Your task to perform on an android device: Search for "razer blackwidow" on newegg.com, select the first entry, add it to the cart, then select checkout. Image 0: 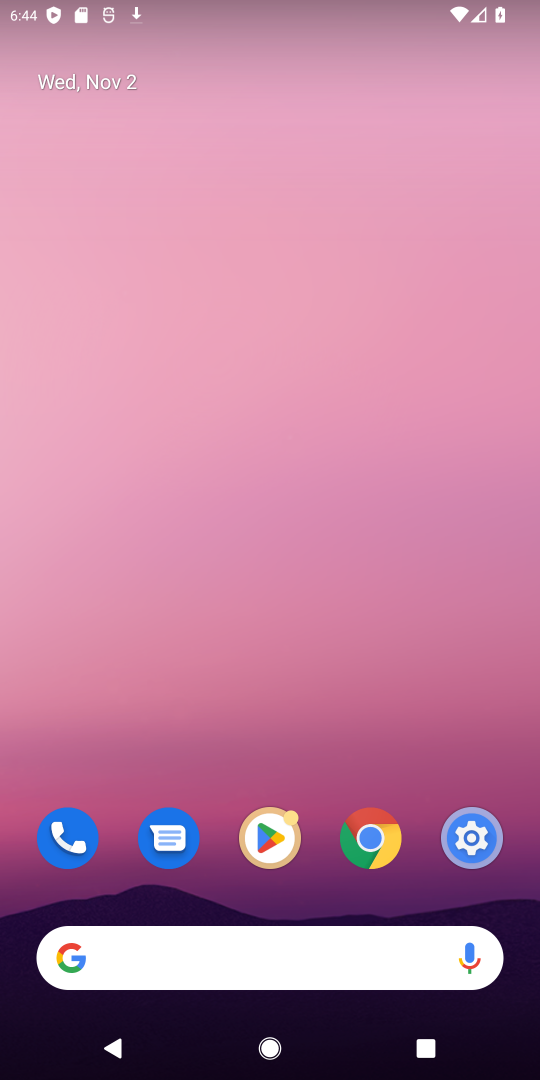
Step 0: click (361, 840)
Your task to perform on an android device: Search for "razer blackwidow" on newegg.com, select the first entry, add it to the cart, then select checkout. Image 1: 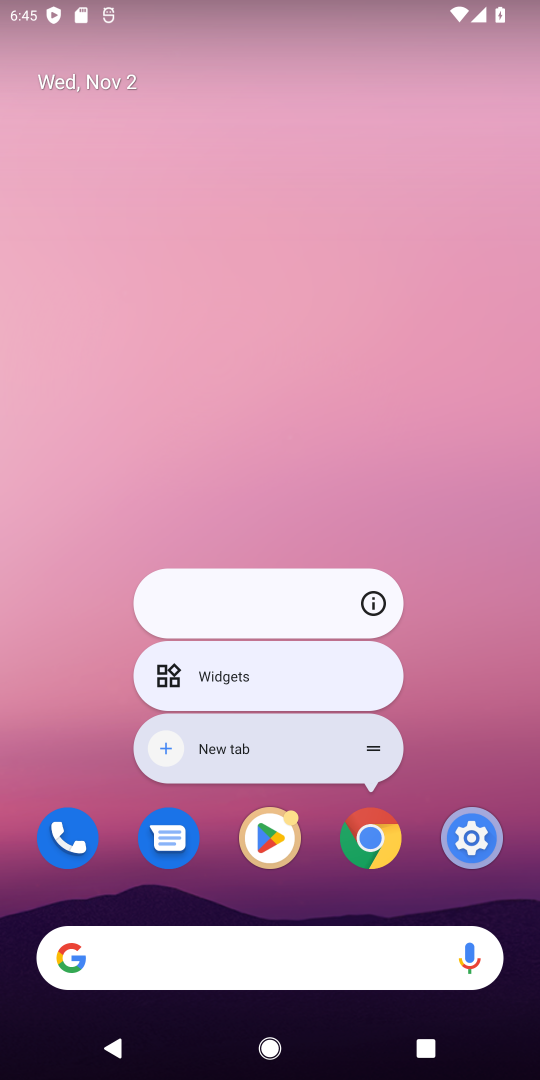
Step 1: click (372, 840)
Your task to perform on an android device: Search for "razer blackwidow" on newegg.com, select the first entry, add it to the cart, then select checkout. Image 2: 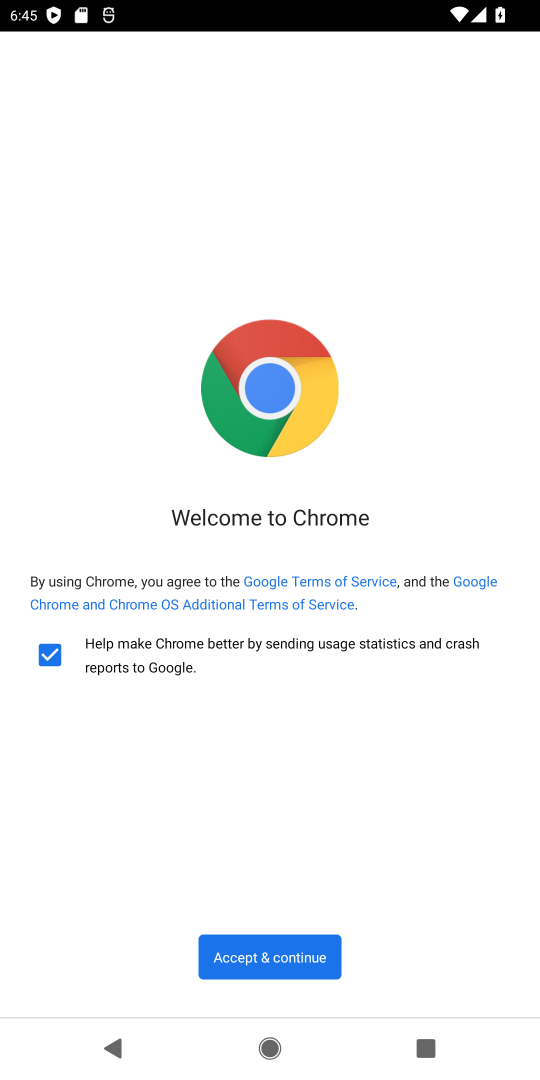
Step 2: click (282, 965)
Your task to perform on an android device: Search for "razer blackwidow" on newegg.com, select the first entry, add it to the cart, then select checkout. Image 3: 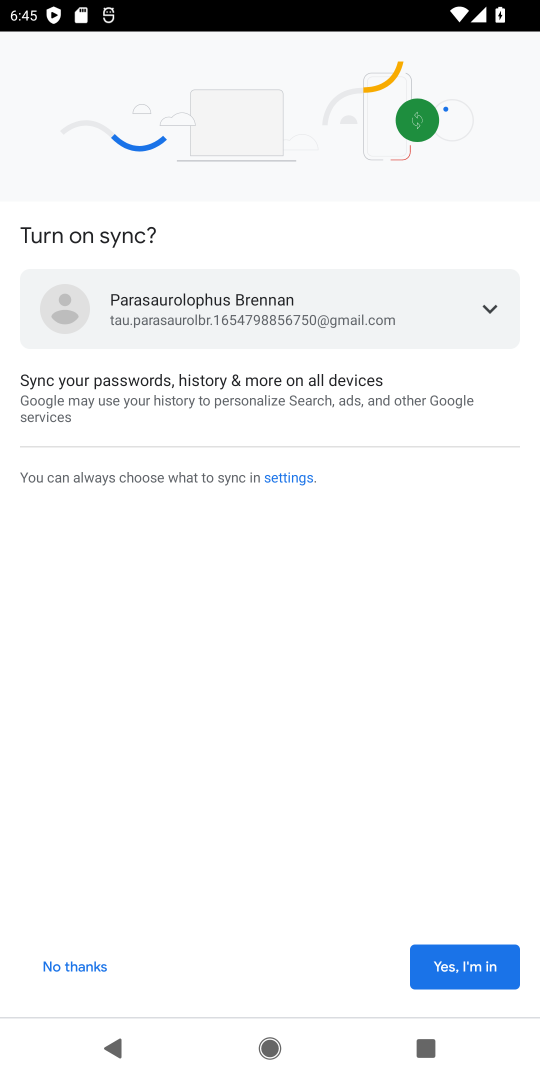
Step 3: click (483, 963)
Your task to perform on an android device: Search for "razer blackwidow" on newegg.com, select the first entry, add it to the cart, then select checkout. Image 4: 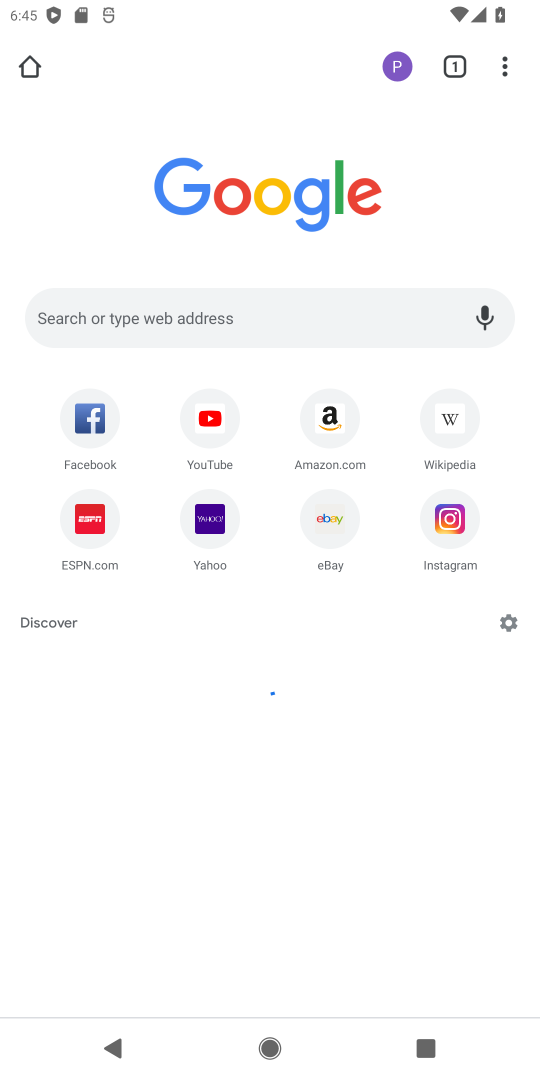
Step 4: click (280, 334)
Your task to perform on an android device: Search for "razer blackwidow" on newegg.com, select the first entry, add it to the cart, then select checkout. Image 5: 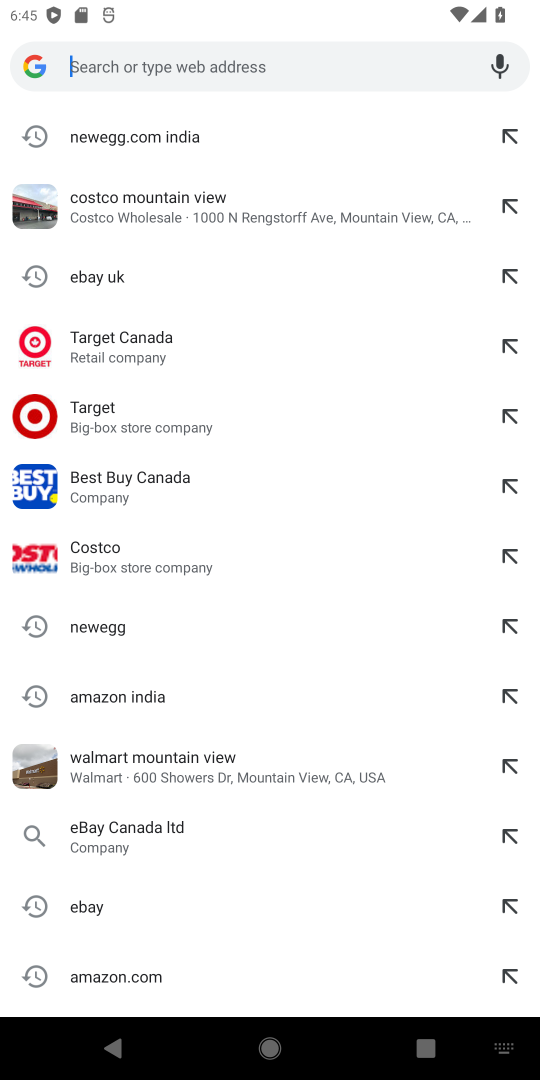
Step 5: press enter
Your task to perform on an android device: Search for "razer blackwidow" on newegg.com, select the first entry, add it to the cart, then select checkout. Image 6: 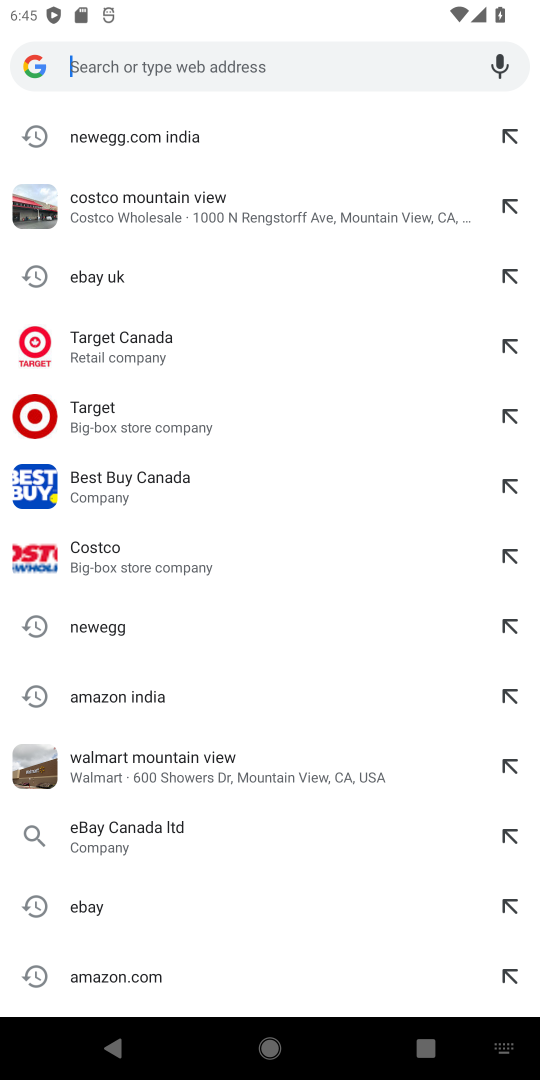
Step 6: type "newegg.com"
Your task to perform on an android device: Search for "razer blackwidow" on newegg.com, select the first entry, add it to the cart, then select checkout. Image 7: 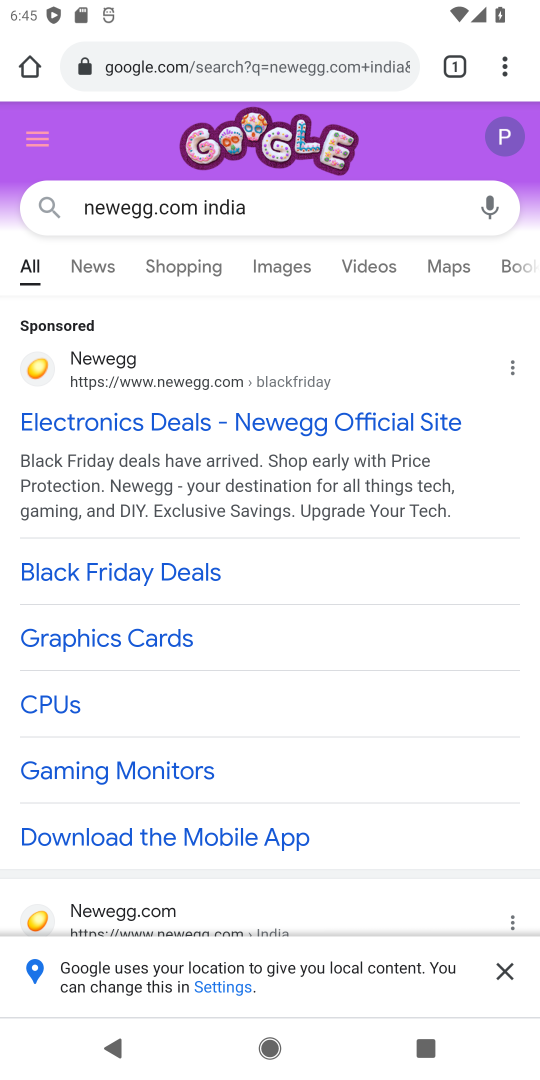
Step 7: click (189, 423)
Your task to perform on an android device: Search for "razer blackwidow" on newegg.com, select the first entry, add it to the cart, then select checkout. Image 8: 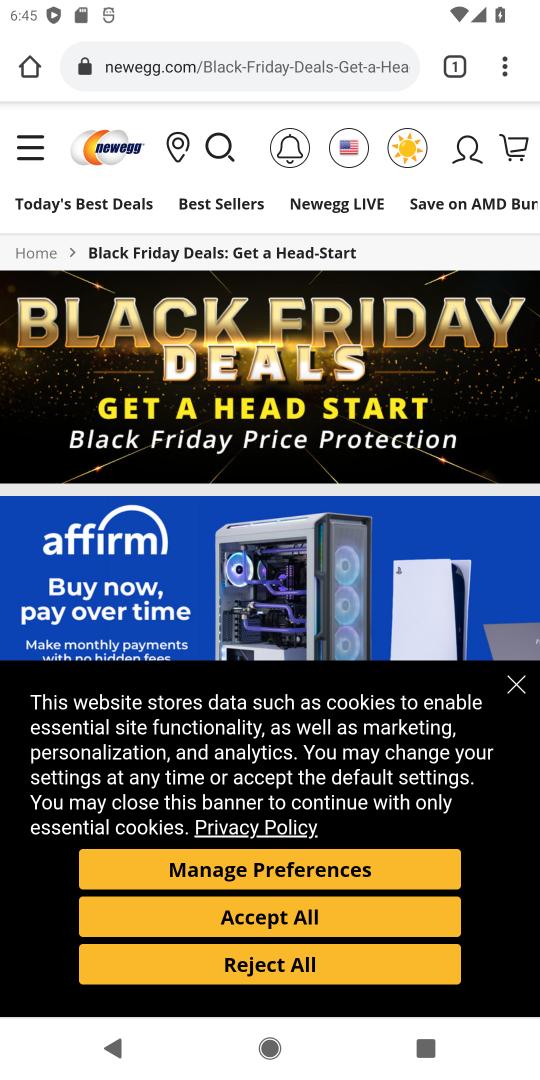
Step 8: click (295, 919)
Your task to perform on an android device: Search for "razer blackwidow" on newegg.com, select the first entry, add it to the cart, then select checkout. Image 9: 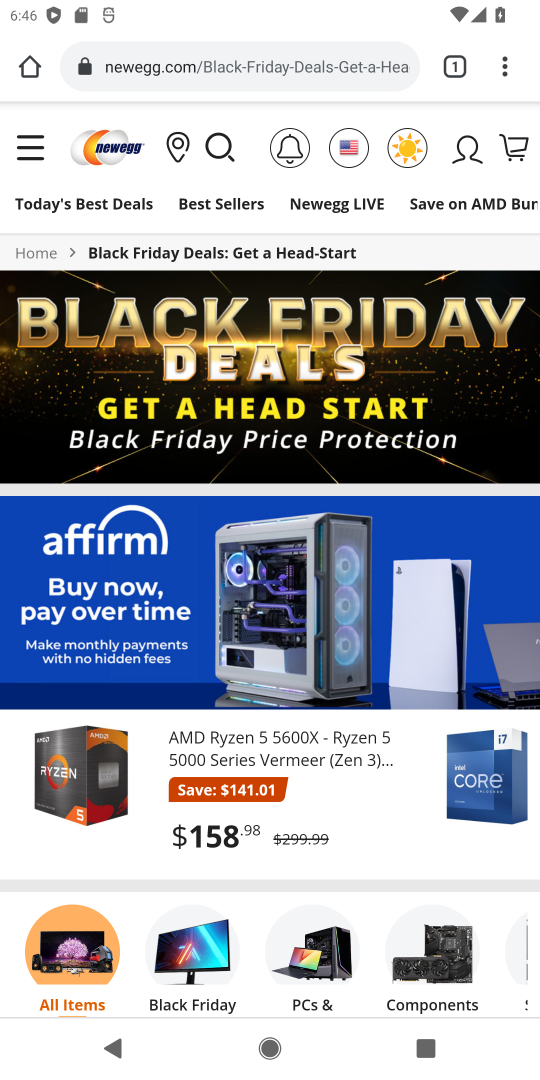
Step 9: click (233, 156)
Your task to perform on an android device: Search for "razer blackwidow" on newegg.com, select the first entry, add it to the cart, then select checkout. Image 10: 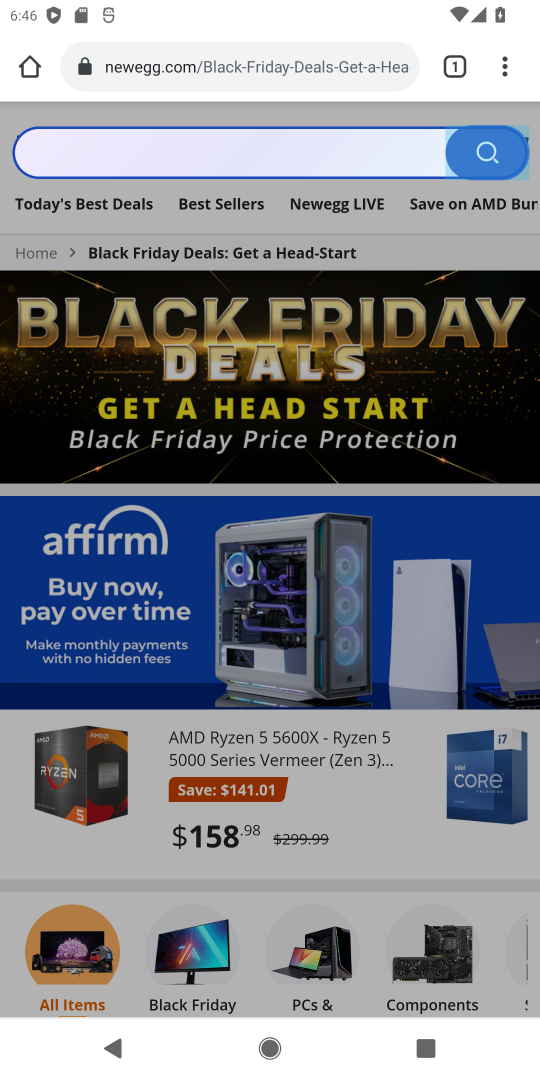
Step 10: click (245, 153)
Your task to perform on an android device: Search for "razer blackwidow" on newegg.com, select the first entry, add it to the cart, then select checkout. Image 11: 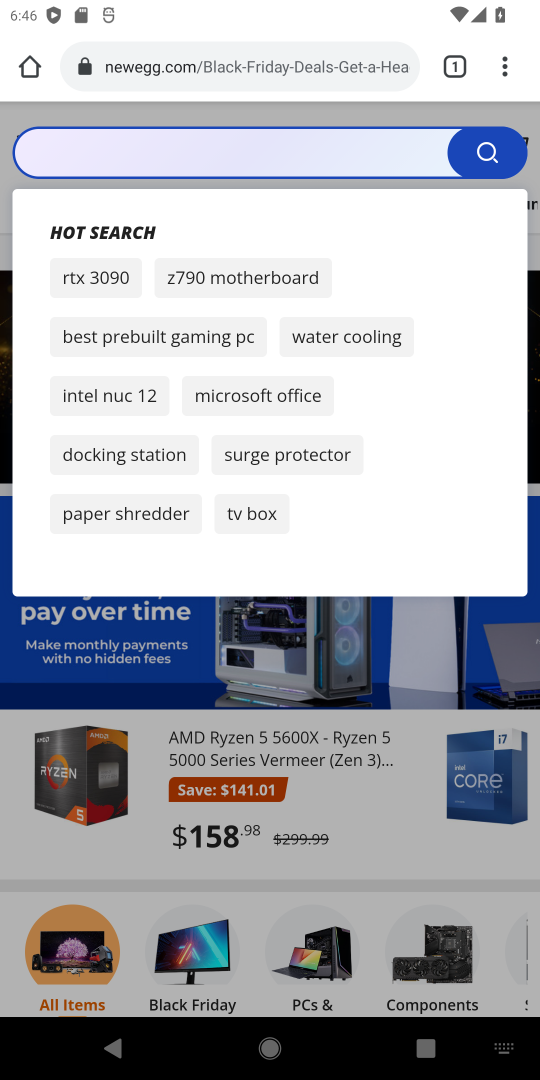
Step 11: type "razer blackwidow"
Your task to perform on an android device: Search for "razer blackwidow" on newegg.com, select the first entry, add it to the cart, then select checkout. Image 12: 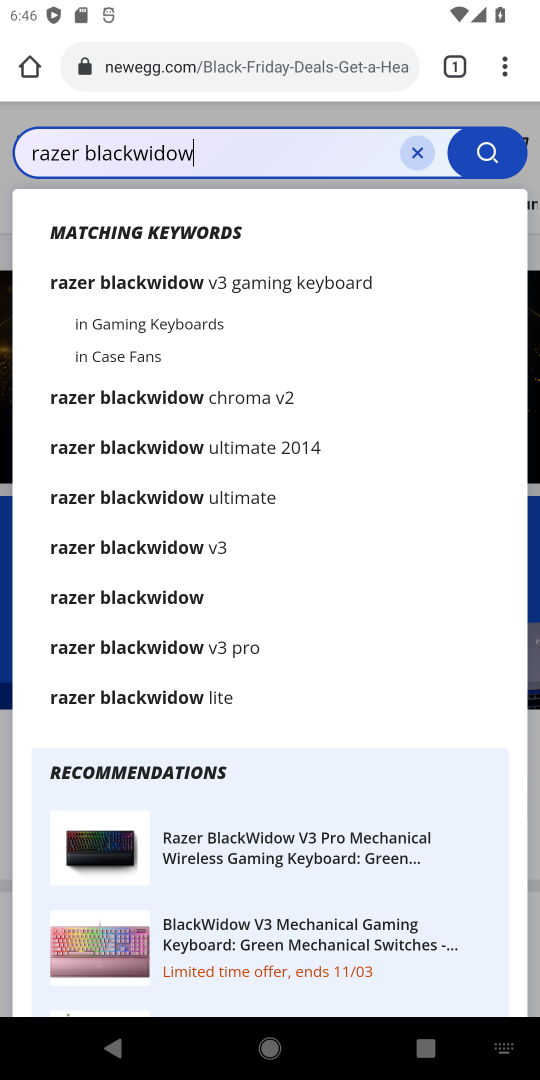
Step 12: press enter
Your task to perform on an android device: Search for "razer blackwidow" on newegg.com, select the first entry, add it to the cart, then select checkout. Image 13: 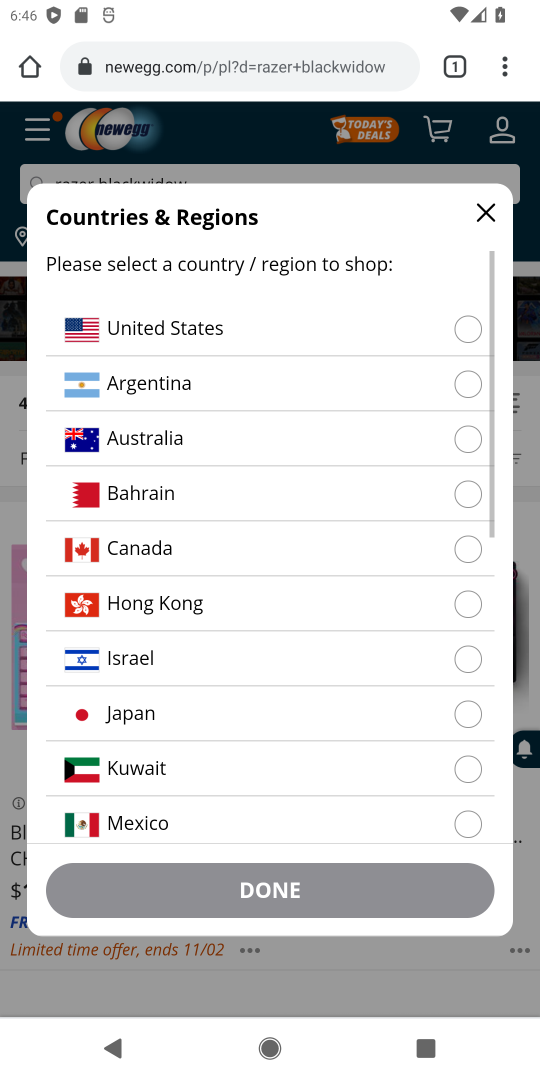
Step 13: click (468, 339)
Your task to perform on an android device: Search for "razer blackwidow" on newegg.com, select the first entry, add it to the cart, then select checkout. Image 14: 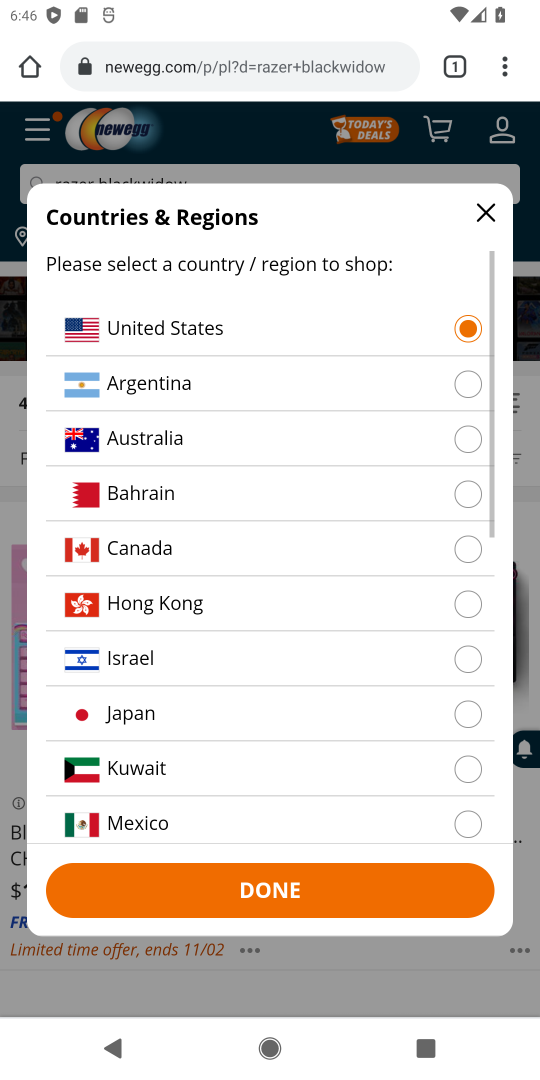
Step 14: click (345, 886)
Your task to perform on an android device: Search for "razer blackwidow" on newegg.com, select the first entry, add it to the cart, then select checkout. Image 15: 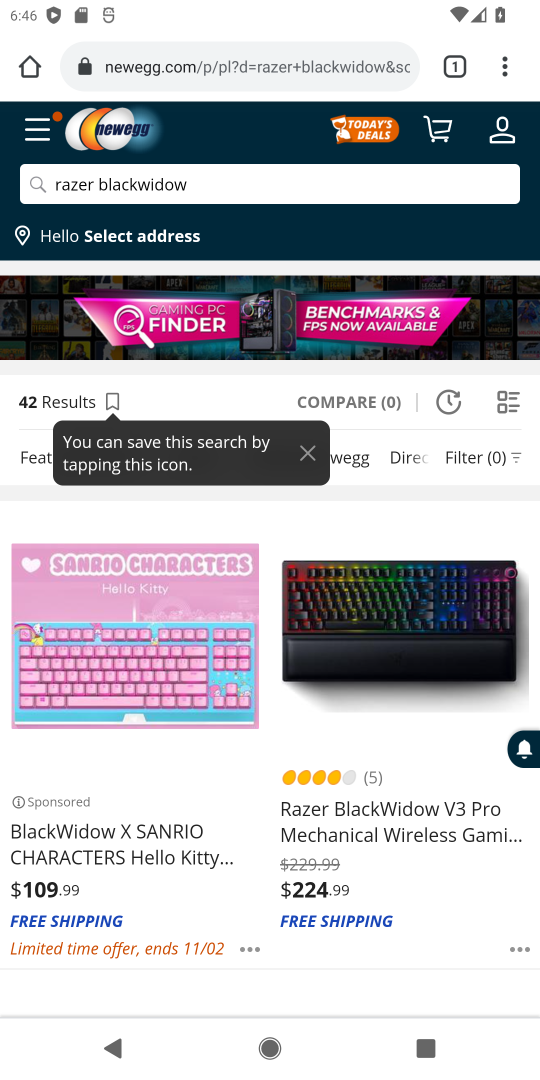
Step 15: click (175, 826)
Your task to perform on an android device: Search for "razer blackwidow" on newegg.com, select the first entry, add it to the cart, then select checkout. Image 16: 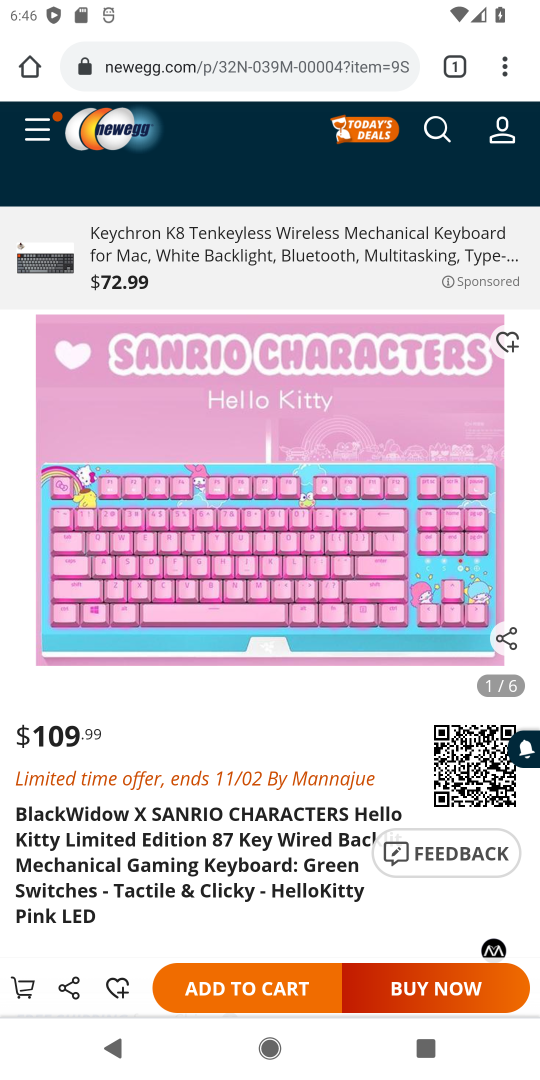
Step 16: click (446, 772)
Your task to perform on an android device: Search for "razer blackwidow" on newegg.com, select the first entry, add it to the cart, then select checkout. Image 17: 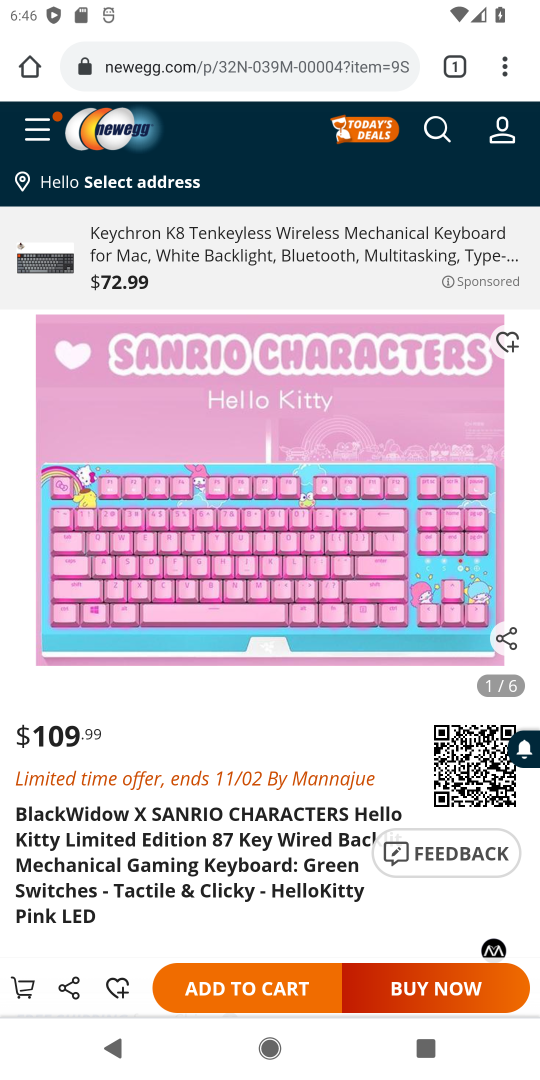
Step 17: press back button
Your task to perform on an android device: Search for "razer blackwidow" on newegg.com, select the first entry, add it to the cart, then select checkout. Image 18: 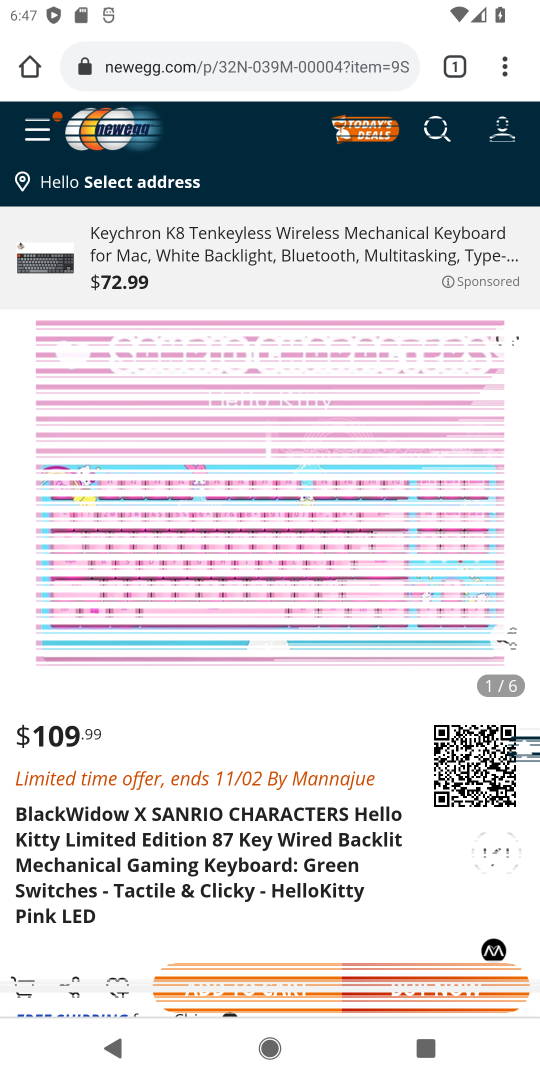
Step 18: press back button
Your task to perform on an android device: Search for "razer blackwidow" on newegg.com, select the first entry, add it to the cart, then select checkout. Image 19: 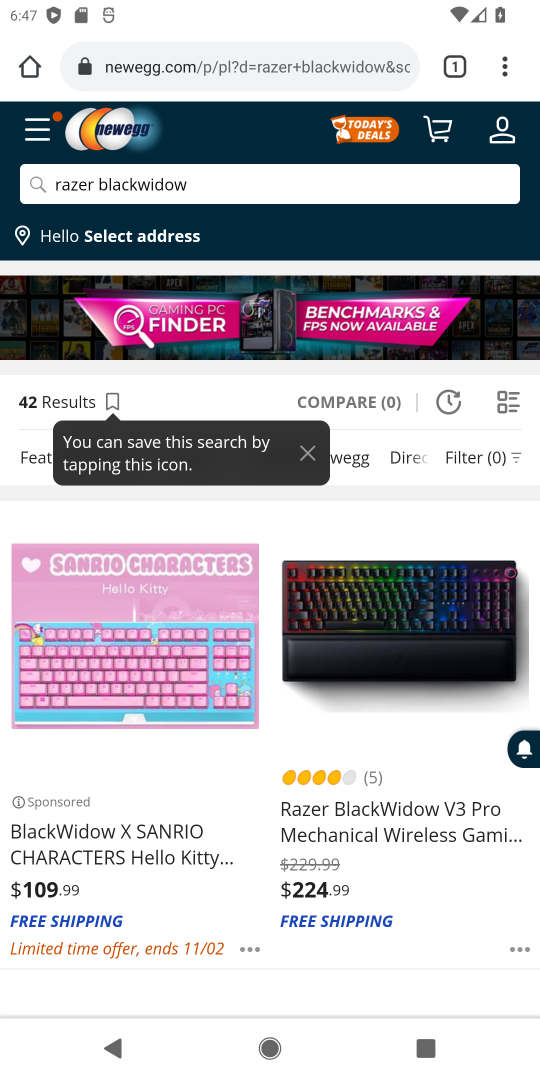
Step 19: click (384, 817)
Your task to perform on an android device: Search for "razer blackwidow" on newegg.com, select the first entry, add it to the cart, then select checkout. Image 20: 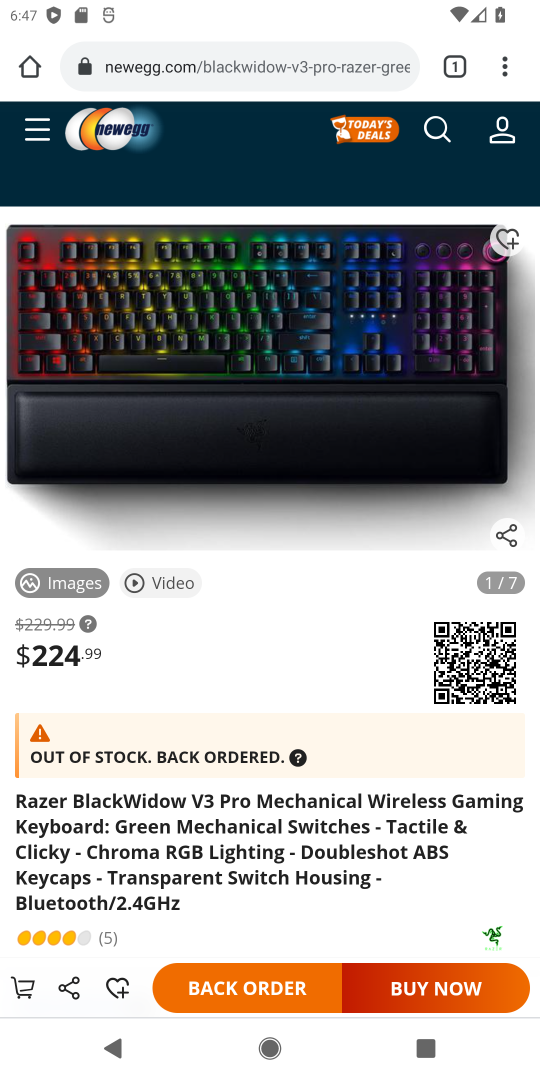
Step 20: drag from (358, 885) to (317, 582)
Your task to perform on an android device: Search for "razer blackwidow" on newegg.com, select the first entry, add it to the cart, then select checkout. Image 21: 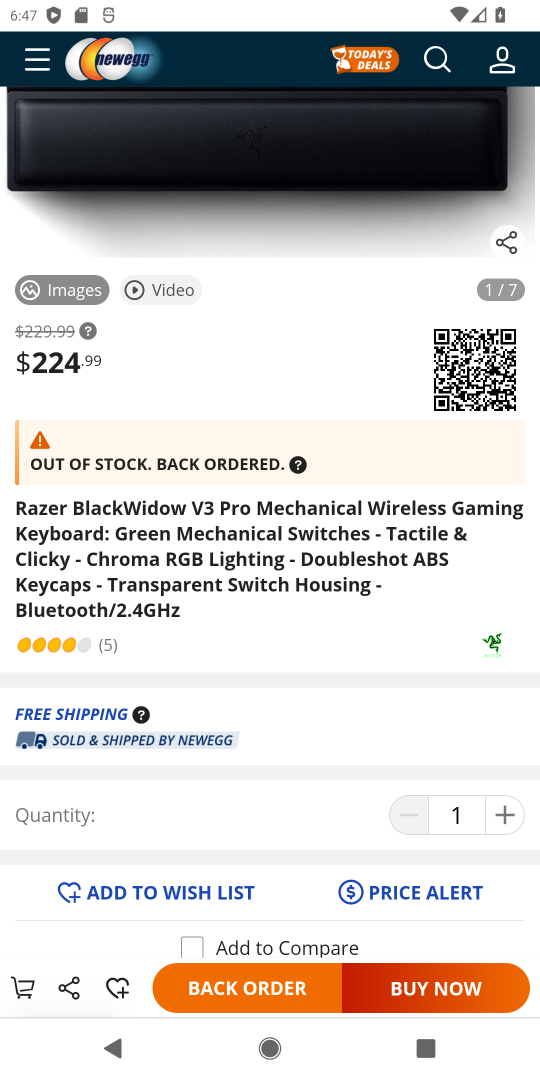
Step 21: press back button
Your task to perform on an android device: Search for "razer blackwidow" on newegg.com, select the first entry, add it to the cart, then select checkout. Image 22: 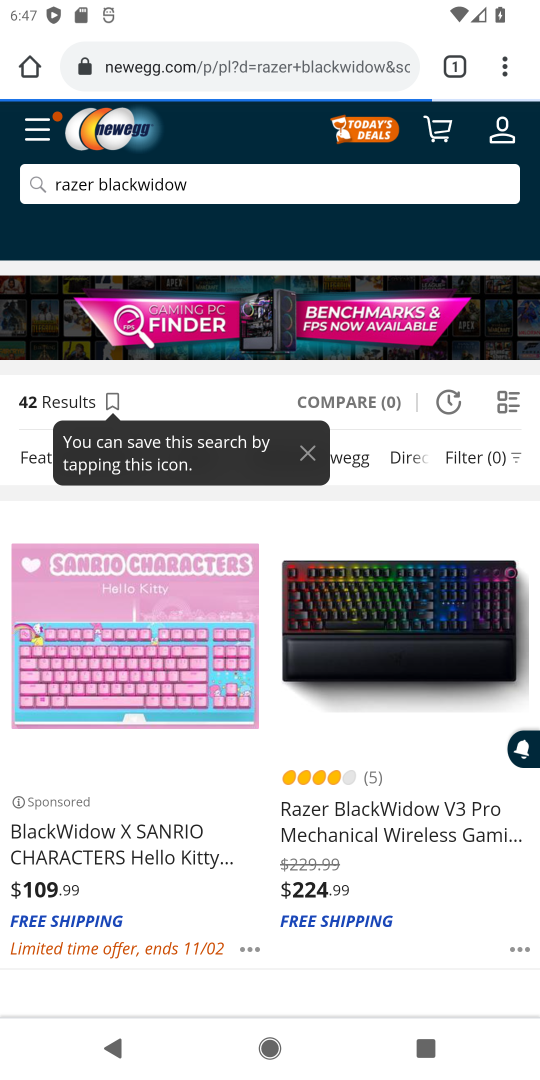
Step 22: drag from (315, 915) to (295, 470)
Your task to perform on an android device: Search for "razer blackwidow" on newegg.com, select the first entry, add it to the cart, then select checkout. Image 23: 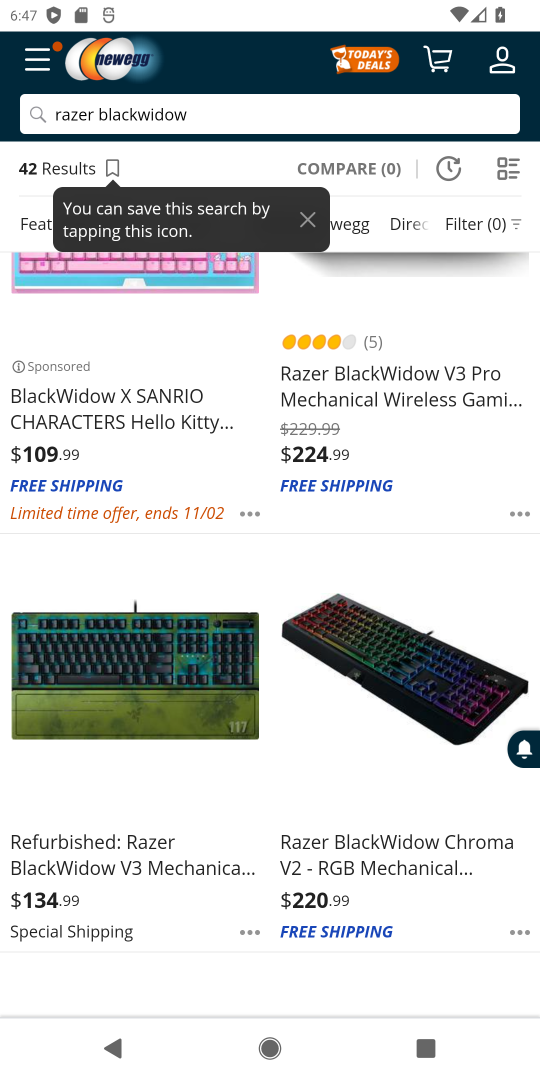
Step 23: click (160, 841)
Your task to perform on an android device: Search for "razer blackwidow" on newegg.com, select the first entry, add it to the cart, then select checkout. Image 24: 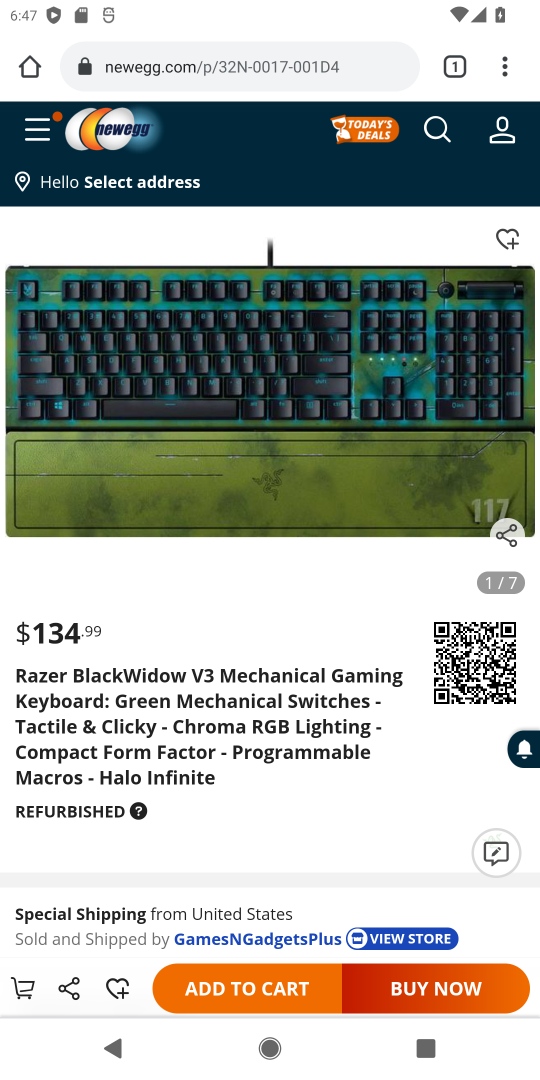
Step 24: click (267, 995)
Your task to perform on an android device: Search for "razer blackwidow" on newegg.com, select the first entry, add it to the cart, then select checkout. Image 25: 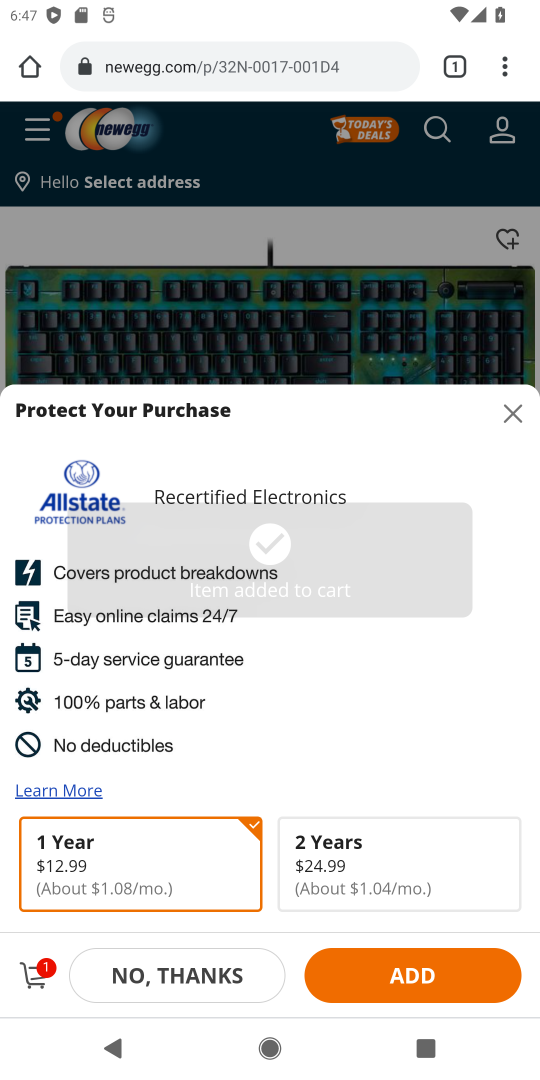
Step 25: click (138, 969)
Your task to perform on an android device: Search for "razer blackwidow" on newegg.com, select the first entry, add it to the cart, then select checkout. Image 26: 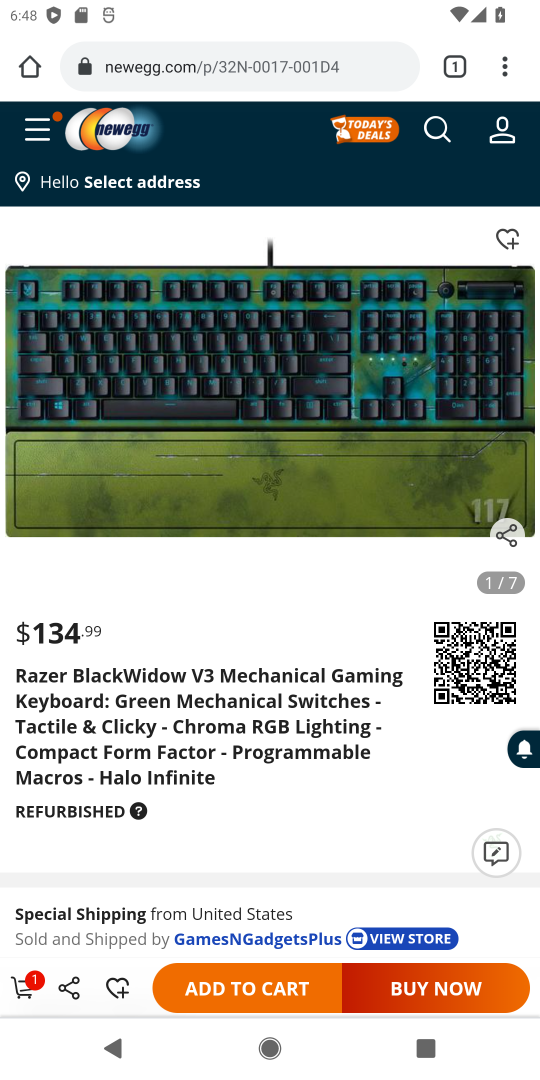
Step 26: click (21, 995)
Your task to perform on an android device: Search for "razer blackwidow" on newegg.com, select the first entry, add it to the cart, then select checkout. Image 27: 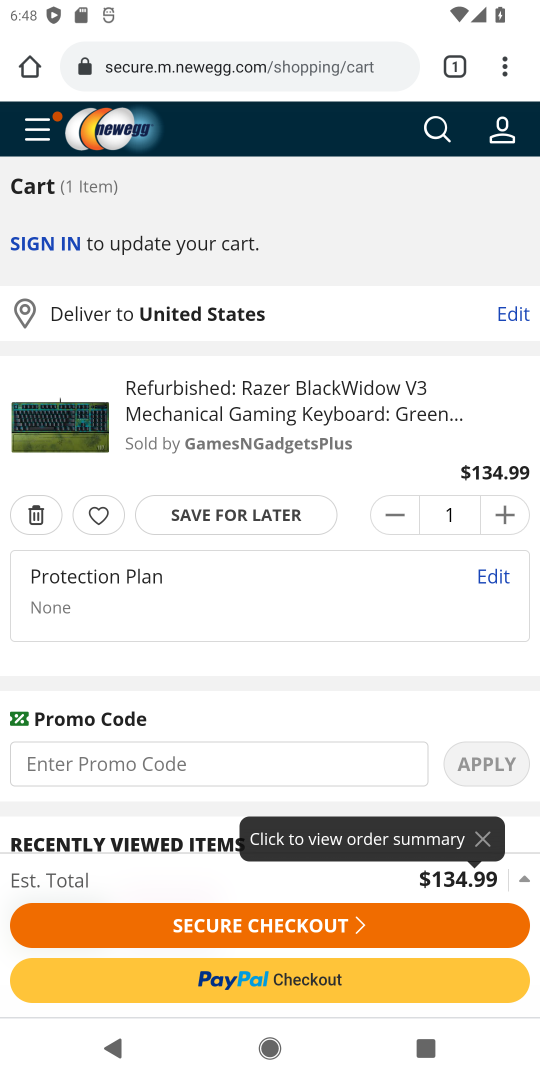
Step 27: click (247, 893)
Your task to perform on an android device: Search for "razer blackwidow" on newegg.com, select the first entry, add it to the cart, then select checkout. Image 28: 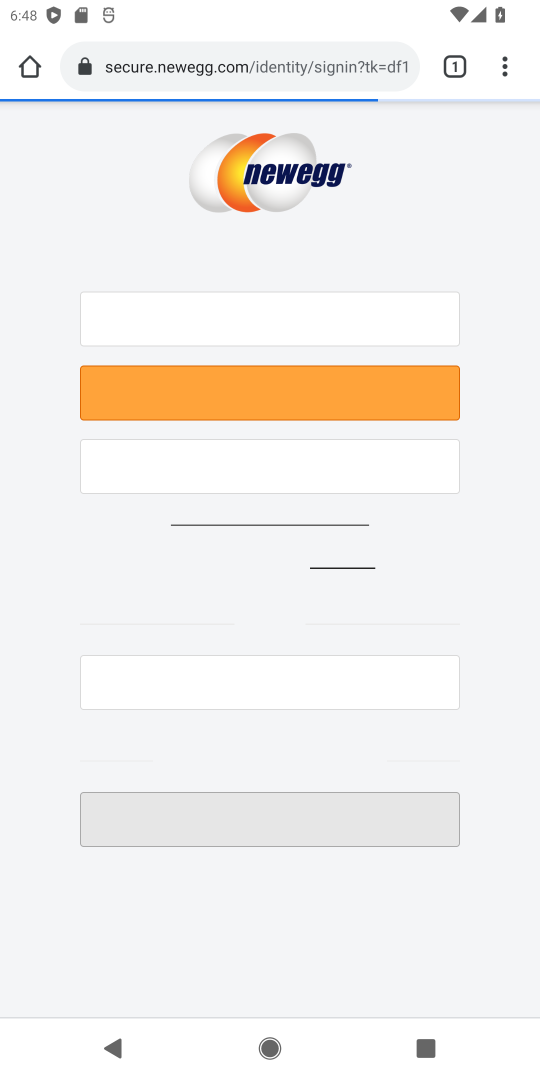
Step 28: click (422, 926)
Your task to perform on an android device: Search for "razer blackwidow" on newegg.com, select the first entry, add it to the cart, then select checkout. Image 29: 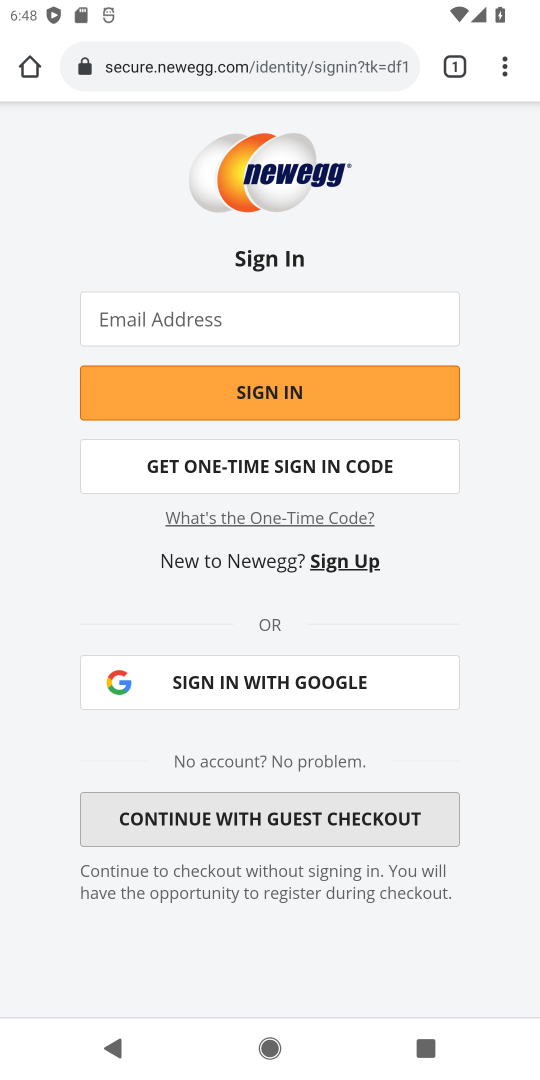
Step 29: task complete